Your task to perform on an android device: Open settings on Google Maps Image 0: 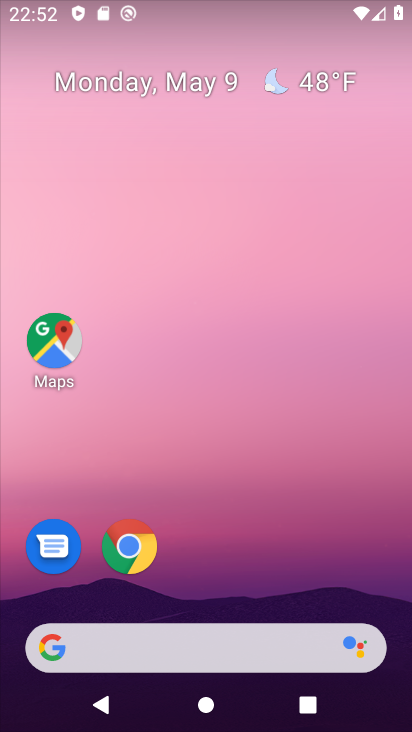
Step 0: drag from (233, 717) to (228, 137)
Your task to perform on an android device: Open settings on Google Maps Image 1: 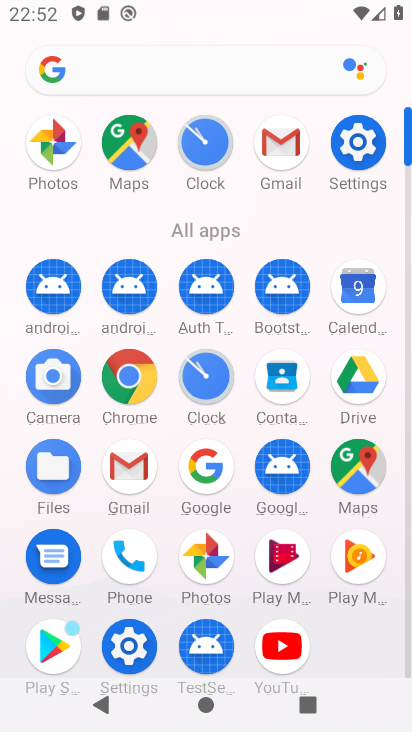
Step 1: click (358, 464)
Your task to perform on an android device: Open settings on Google Maps Image 2: 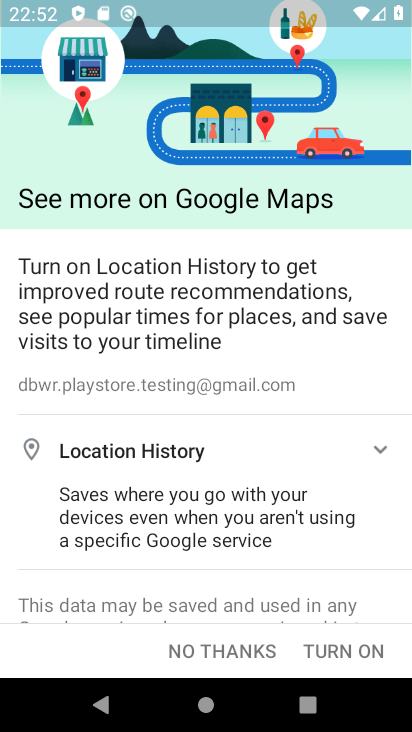
Step 2: click (229, 647)
Your task to perform on an android device: Open settings on Google Maps Image 3: 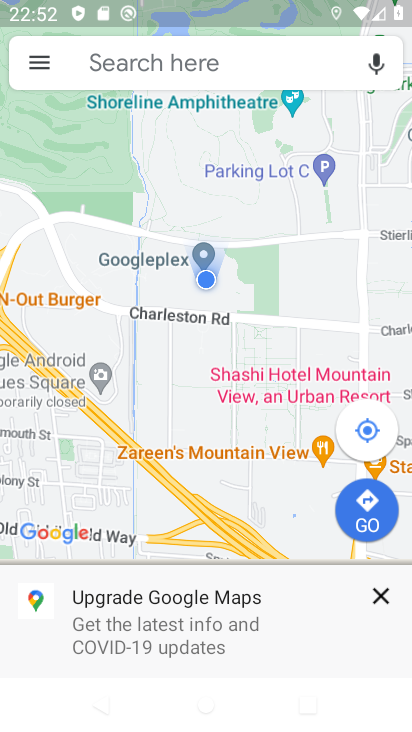
Step 3: task complete